Your task to perform on an android device: When is my next meeting? Image 0: 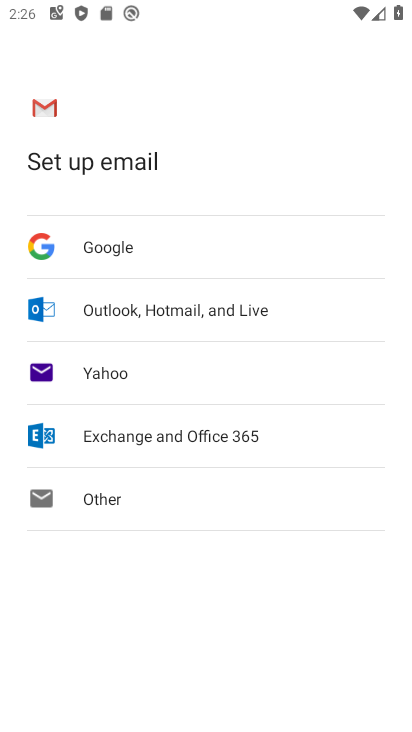
Step 0: press home button
Your task to perform on an android device: When is my next meeting? Image 1: 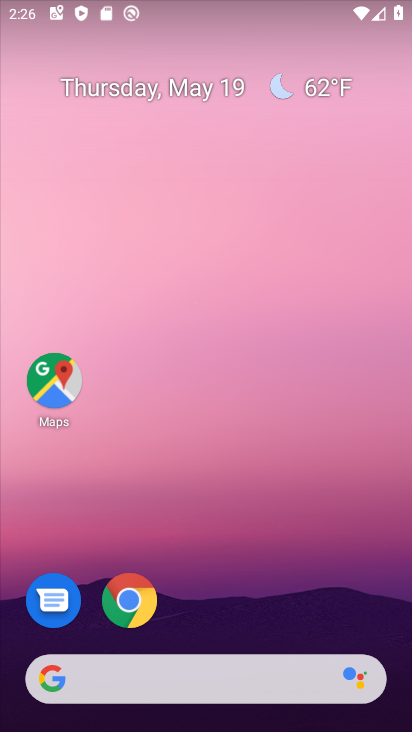
Step 1: drag from (25, 670) to (308, 123)
Your task to perform on an android device: When is my next meeting? Image 2: 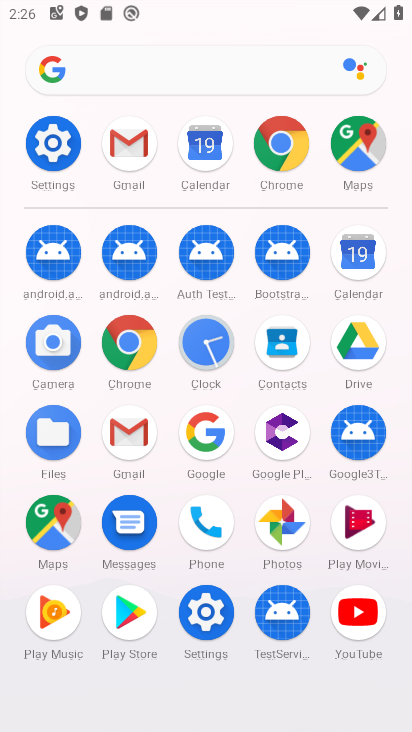
Step 2: click (375, 256)
Your task to perform on an android device: When is my next meeting? Image 3: 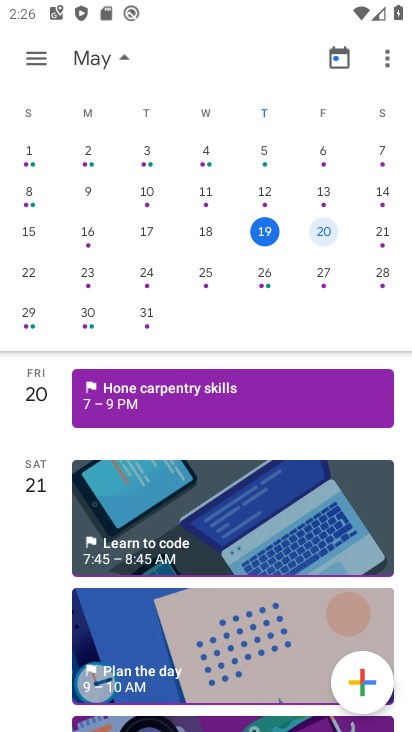
Step 3: task complete